Your task to perform on an android device: check storage Image 0: 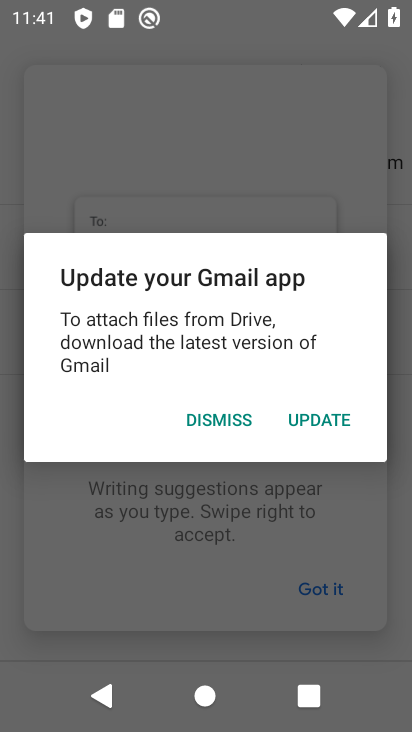
Step 0: press home button
Your task to perform on an android device: check storage Image 1: 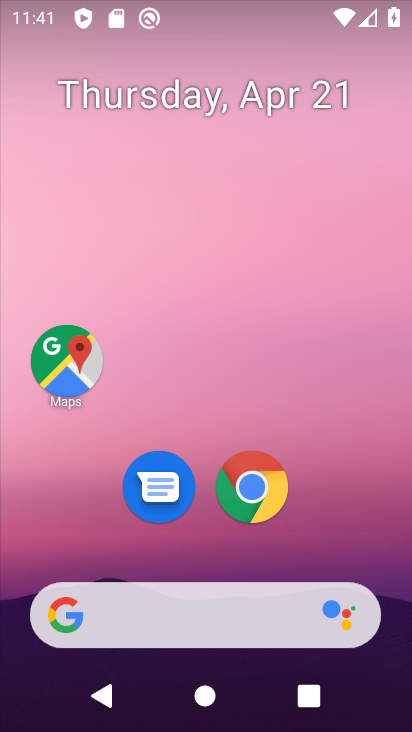
Step 1: drag from (184, 555) to (192, 18)
Your task to perform on an android device: check storage Image 2: 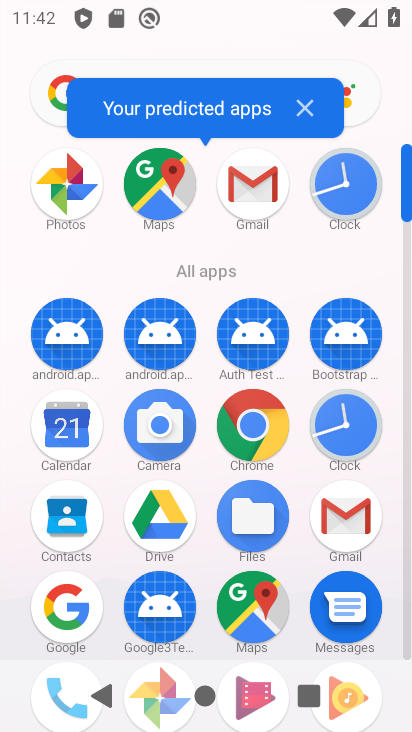
Step 2: drag from (209, 627) to (206, 335)
Your task to perform on an android device: check storage Image 3: 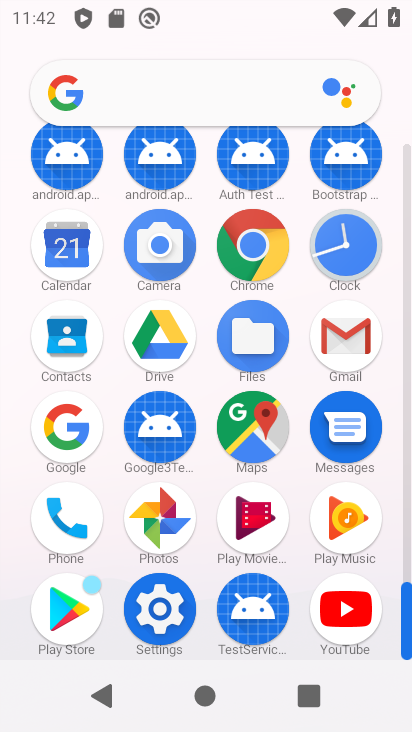
Step 3: click (176, 590)
Your task to perform on an android device: check storage Image 4: 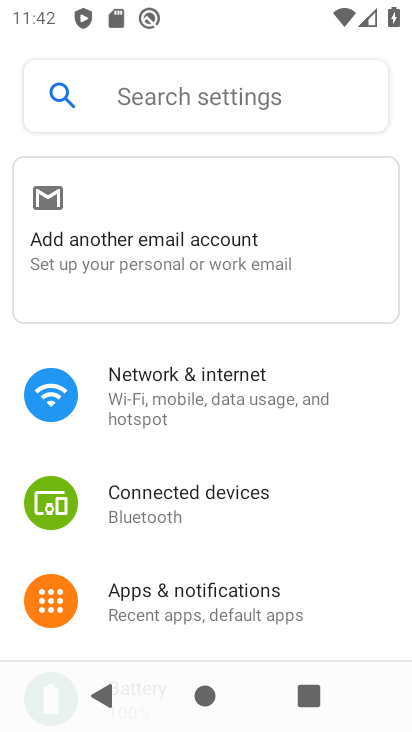
Step 4: drag from (176, 562) to (221, 155)
Your task to perform on an android device: check storage Image 5: 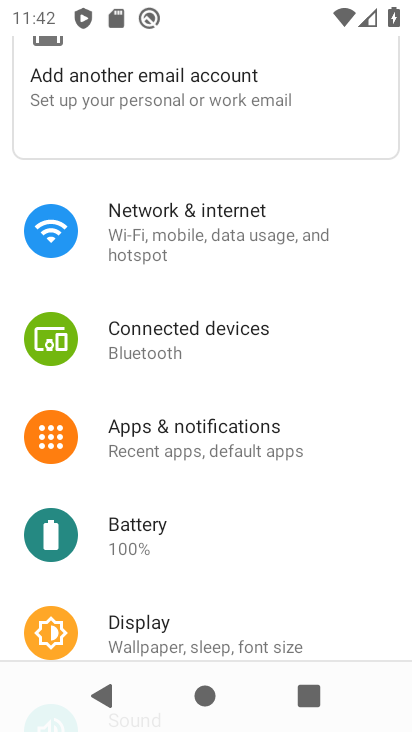
Step 5: drag from (110, 596) to (204, 282)
Your task to perform on an android device: check storage Image 6: 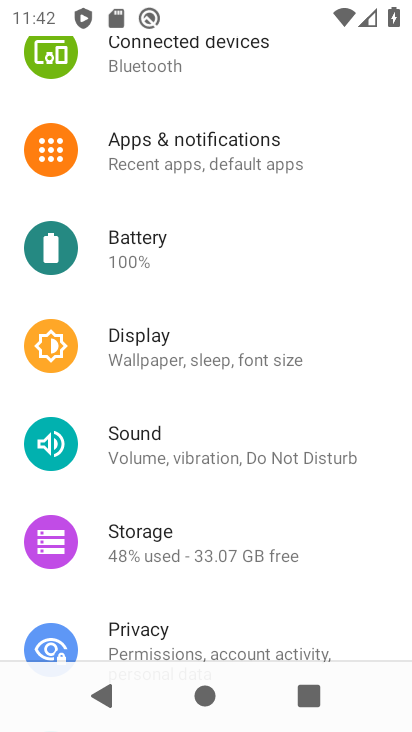
Step 6: click (116, 543)
Your task to perform on an android device: check storage Image 7: 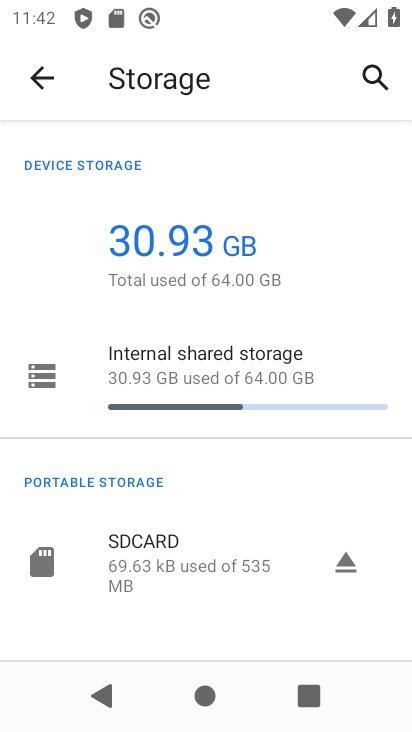
Step 7: task complete